Your task to perform on an android device: Open Google Chrome and open the bookmarks view Image 0: 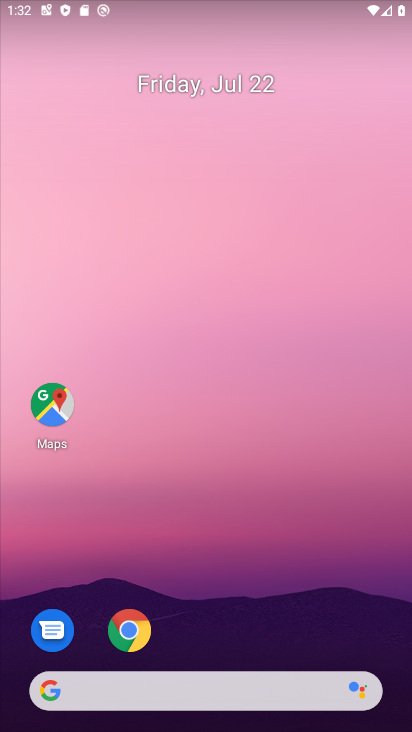
Step 0: click (123, 630)
Your task to perform on an android device: Open Google Chrome and open the bookmarks view Image 1: 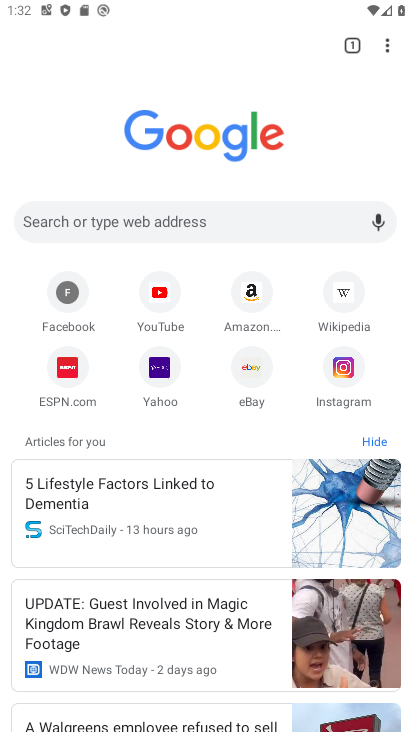
Step 1: click (384, 43)
Your task to perform on an android device: Open Google Chrome and open the bookmarks view Image 2: 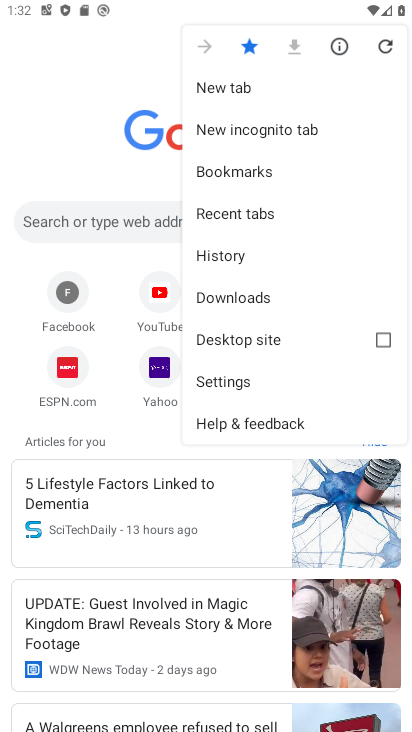
Step 2: click (239, 163)
Your task to perform on an android device: Open Google Chrome and open the bookmarks view Image 3: 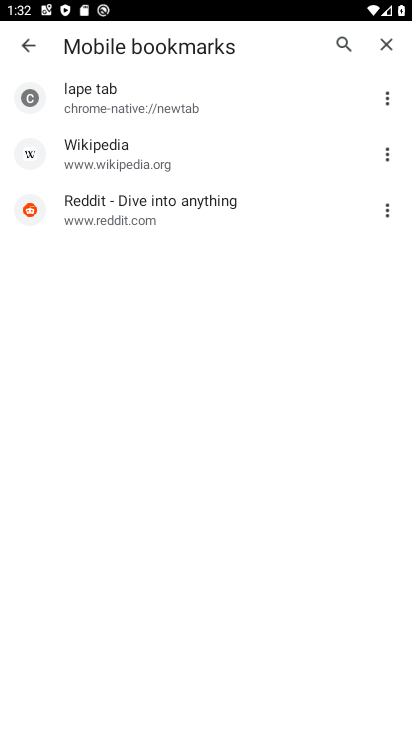
Step 3: task complete